Your task to perform on an android device: toggle translation in the chrome app Image 0: 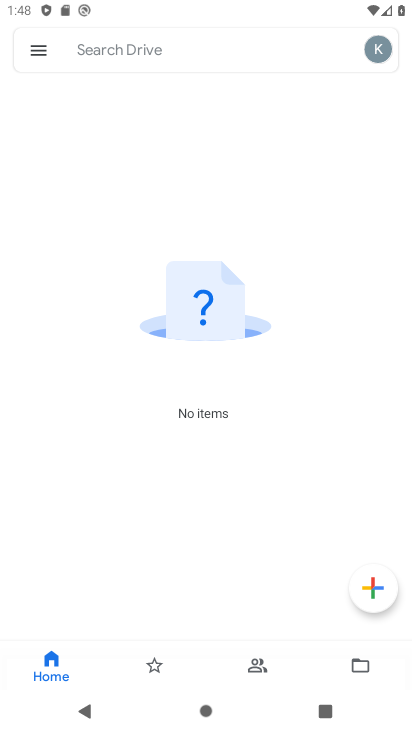
Step 0: press home button
Your task to perform on an android device: toggle translation in the chrome app Image 1: 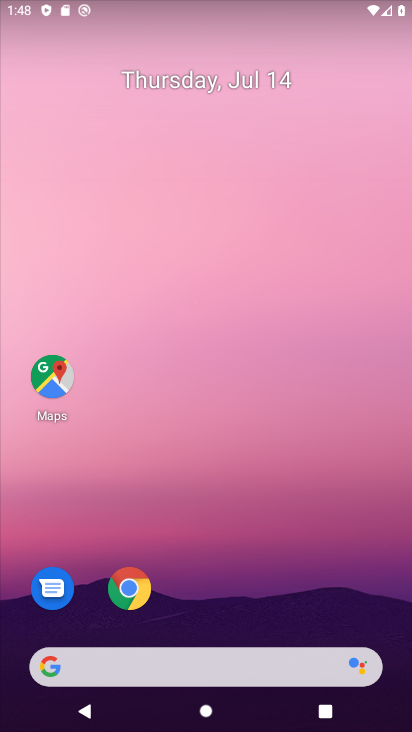
Step 1: click (152, 592)
Your task to perform on an android device: toggle translation in the chrome app Image 2: 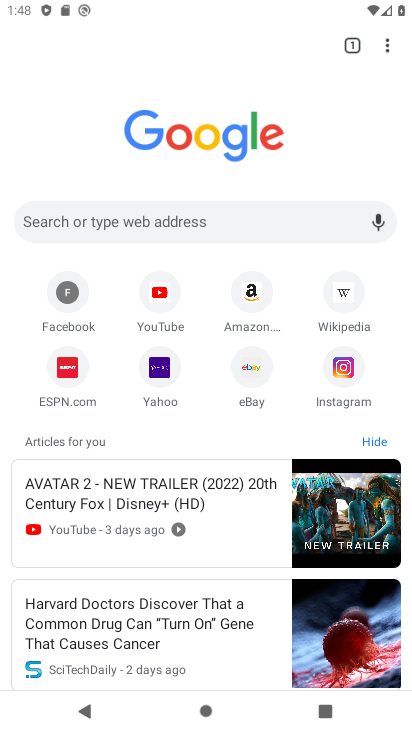
Step 2: click (387, 37)
Your task to perform on an android device: toggle translation in the chrome app Image 3: 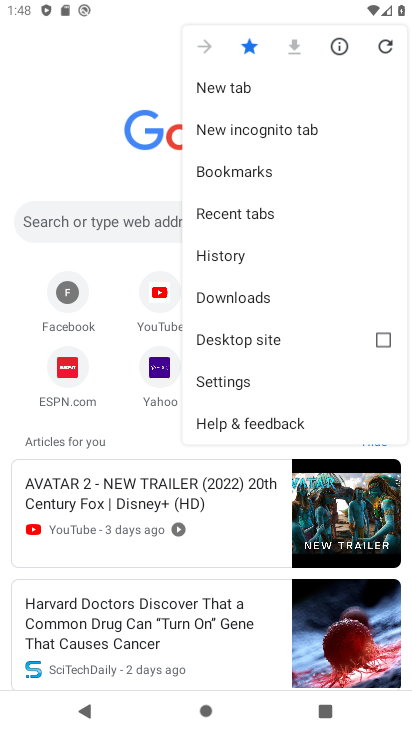
Step 3: click (254, 385)
Your task to perform on an android device: toggle translation in the chrome app Image 4: 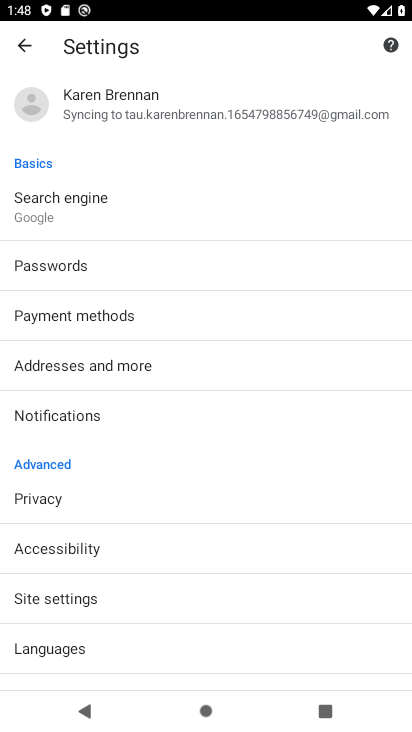
Step 4: click (94, 634)
Your task to perform on an android device: toggle translation in the chrome app Image 5: 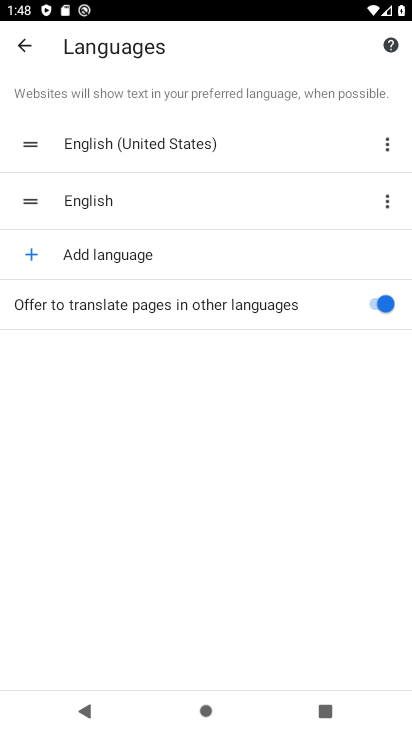
Step 5: click (378, 310)
Your task to perform on an android device: toggle translation in the chrome app Image 6: 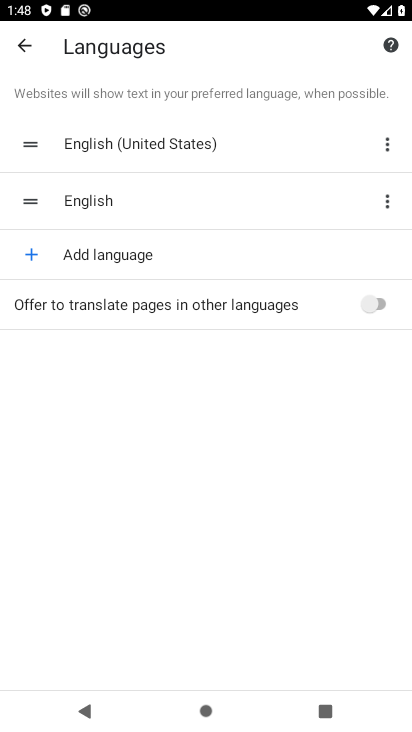
Step 6: task complete